Your task to perform on an android device: Find coffee shops on Maps Image 0: 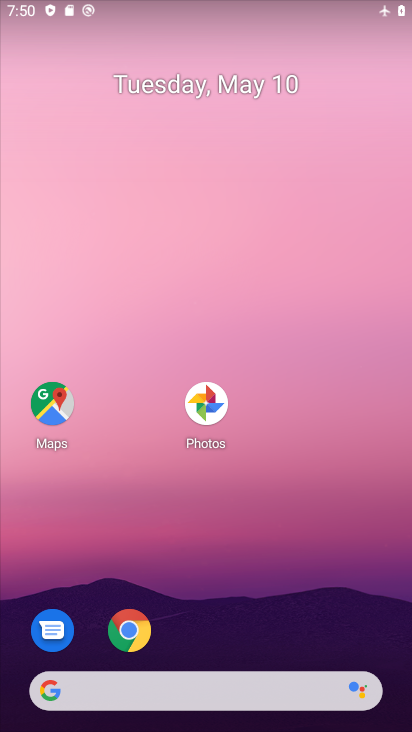
Step 0: drag from (217, 662) to (268, 3)
Your task to perform on an android device: Find coffee shops on Maps Image 1: 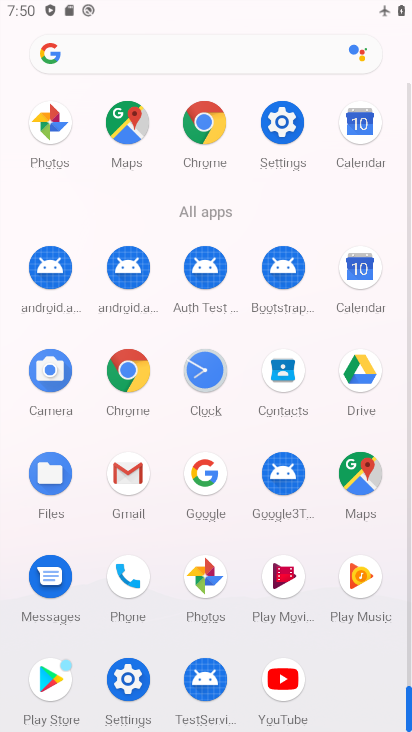
Step 1: click (359, 477)
Your task to perform on an android device: Find coffee shops on Maps Image 2: 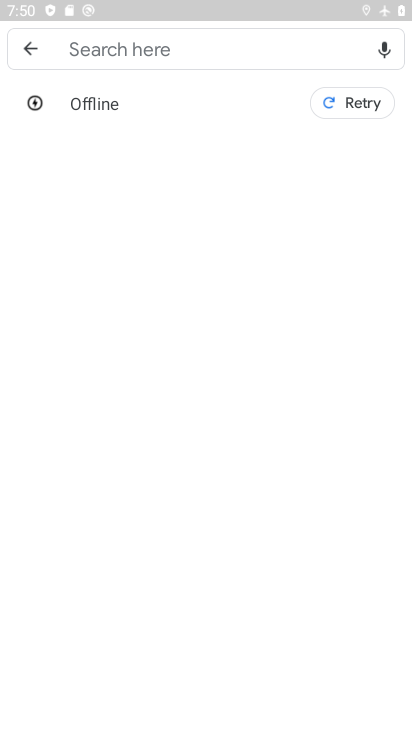
Step 2: click (359, 111)
Your task to perform on an android device: Find coffee shops on Maps Image 3: 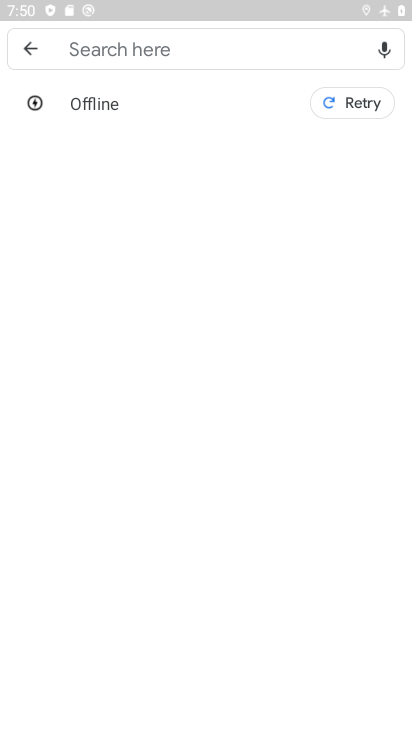
Step 3: click (234, 38)
Your task to perform on an android device: Find coffee shops on Maps Image 4: 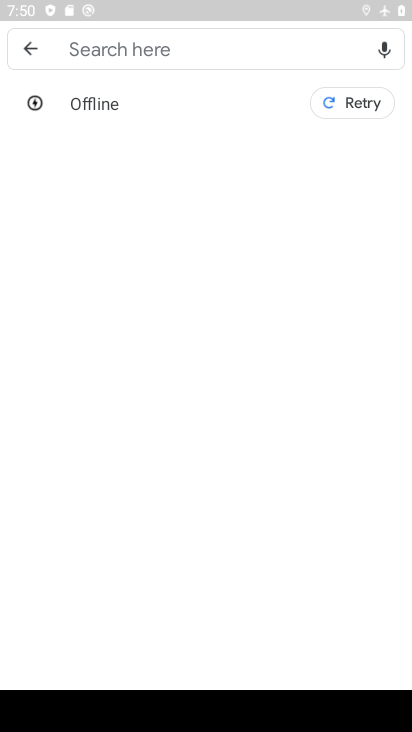
Step 4: click (35, 43)
Your task to perform on an android device: Find coffee shops on Maps Image 5: 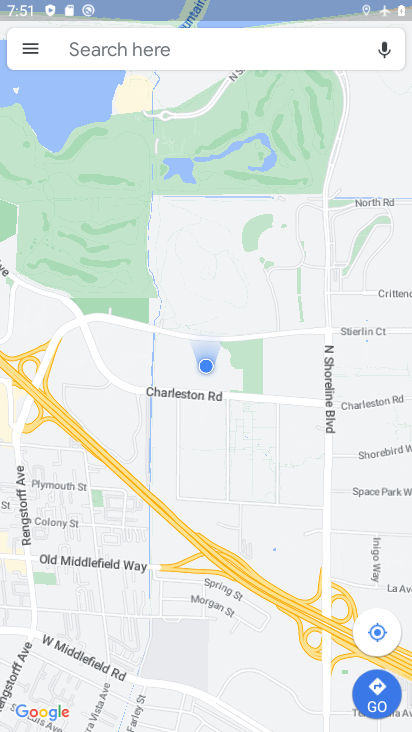
Step 5: click (149, 49)
Your task to perform on an android device: Find coffee shops on Maps Image 6: 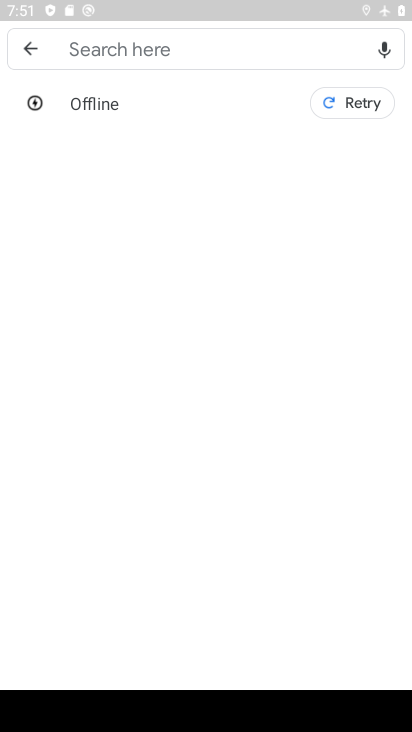
Step 6: type "coffee shop"
Your task to perform on an android device: Find coffee shops on Maps Image 7: 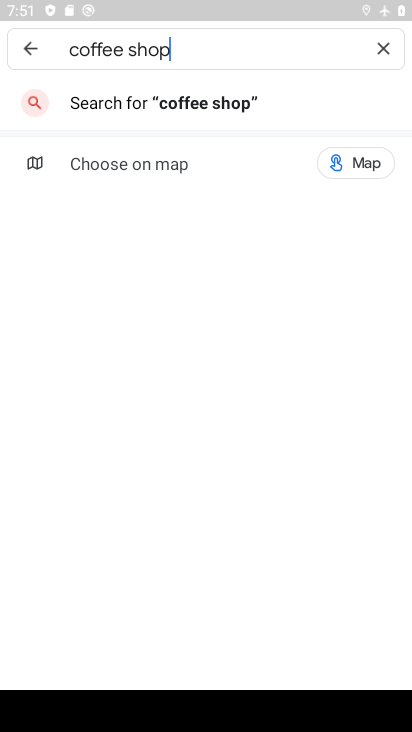
Step 7: task complete